Your task to perform on an android device: Open Youtube and go to the subscriptions tab Image 0: 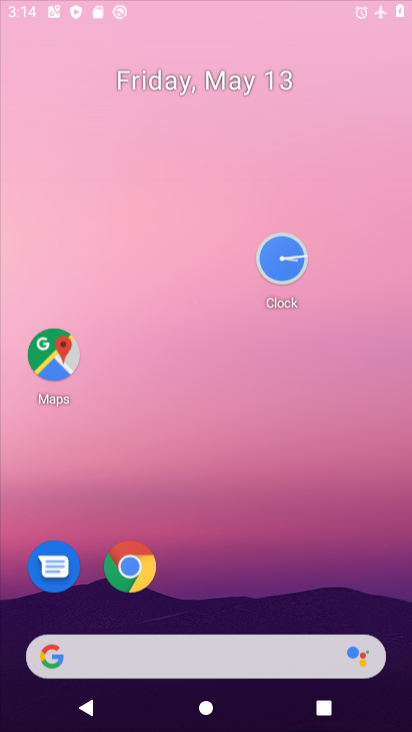
Step 0: drag from (263, 601) to (251, 170)
Your task to perform on an android device: Open Youtube and go to the subscriptions tab Image 1: 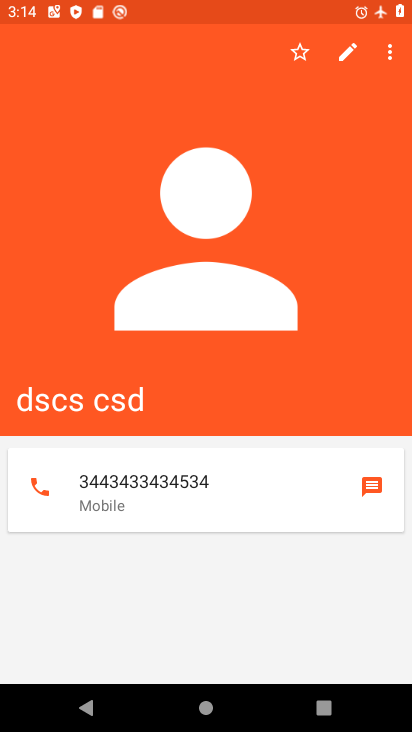
Step 1: press home button
Your task to perform on an android device: Open Youtube and go to the subscriptions tab Image 2: 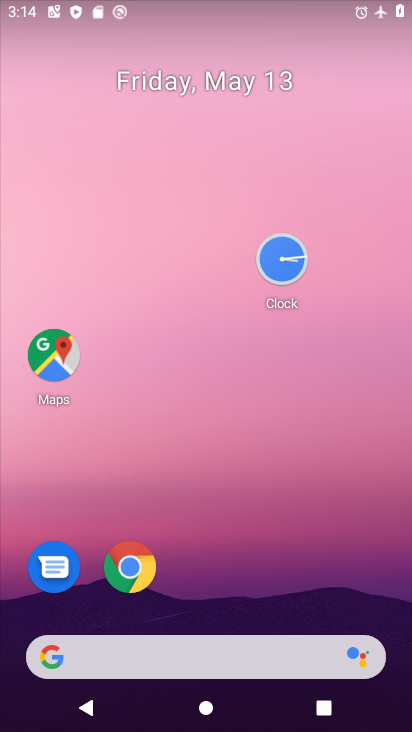
Step 2: drag from (297, 621) to (291, 222)
Your task to perform on an android device: Open Youtube and go to the subscriptions tab Image 3: 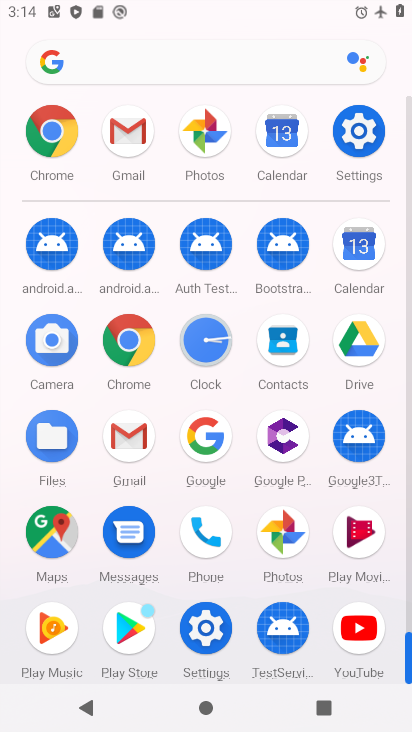
Step 3: click (363, 646)
Your task to perform on an android device: Open Youtube and go to the subscriptions tab Image 4: 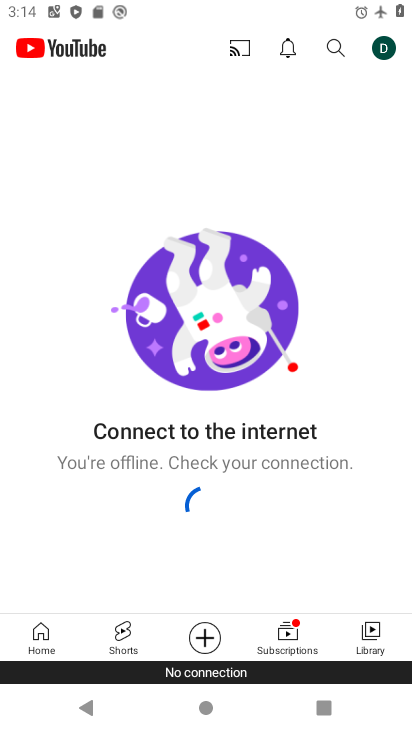
Step 4: click (265, 647)
Your task to perform on an android device: Open Youtube and go to the subscriptions tab Image 5: 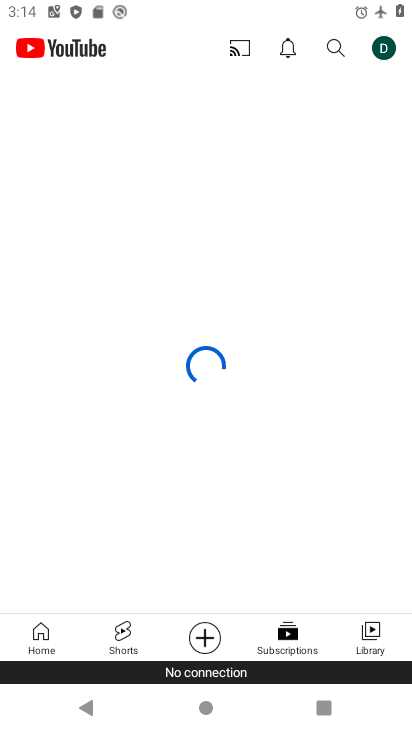
Step 5: task complete